Your task to perform on an android device: Check the price on the Dyson V11 Motorhead on Best Buy Image 0: 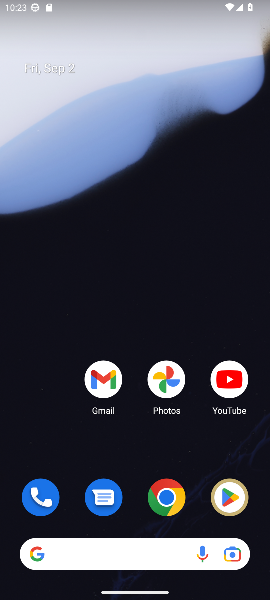
Step 0: drag from (121, 502) to (121, 268)
Your task to perform on an android device: Check the price on the Dyson V11 Motorhead on Best Buy Image 1: 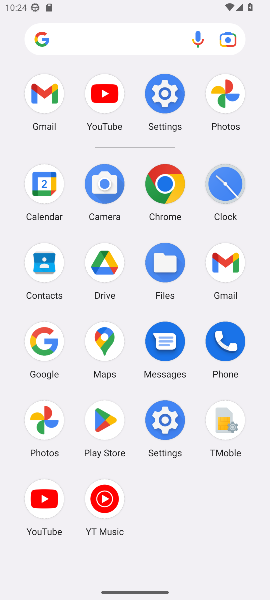
Step 1: click (42, 338)
Your task to perform on an android device: Check the price on the Dyson V11 Motorhead on Best Buy Image 2: 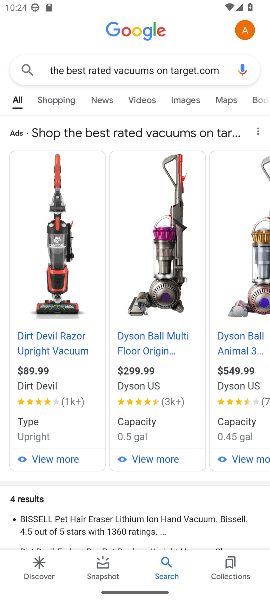
Step 2: click (223, 73)
Your task to perform on an android device: Check the price on the Dyson V11 Motorhead on Best Buy Image 3: 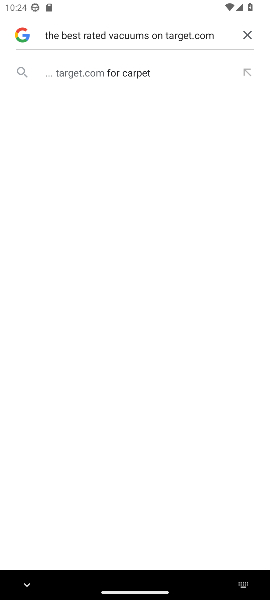
Step 3: click (247, 34)
Your task to perform on an android device: Check the price on the Dyson V11 Motorhead on Best Buy Image 4: 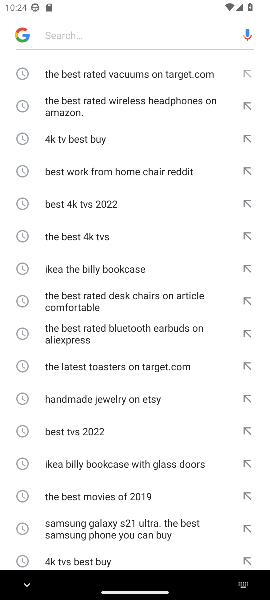
Step 4: type "the price on the Dyson V11 Motorhead on Best Buy"
Your task to perform on an android device: Check the price on the Dyson V11 Motorhead on Best Buy Image 5: 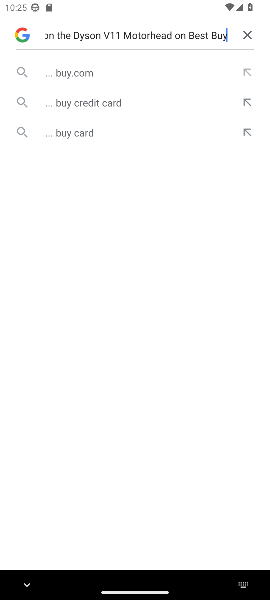
Step 5: click (76, 73)
Your task to perform on an android device: Check the price on the Dyson V11 Motorhead on Best Buy Image 6: 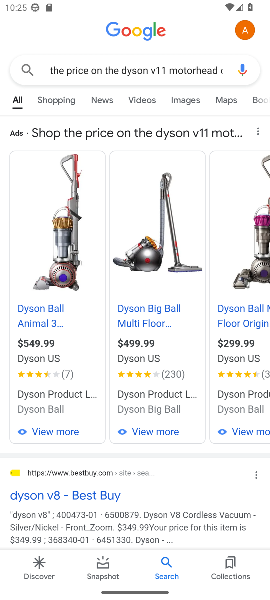
Step 6: task complete